Your task to perform on an android device: open app "Microsoft Outlook" Image 0: 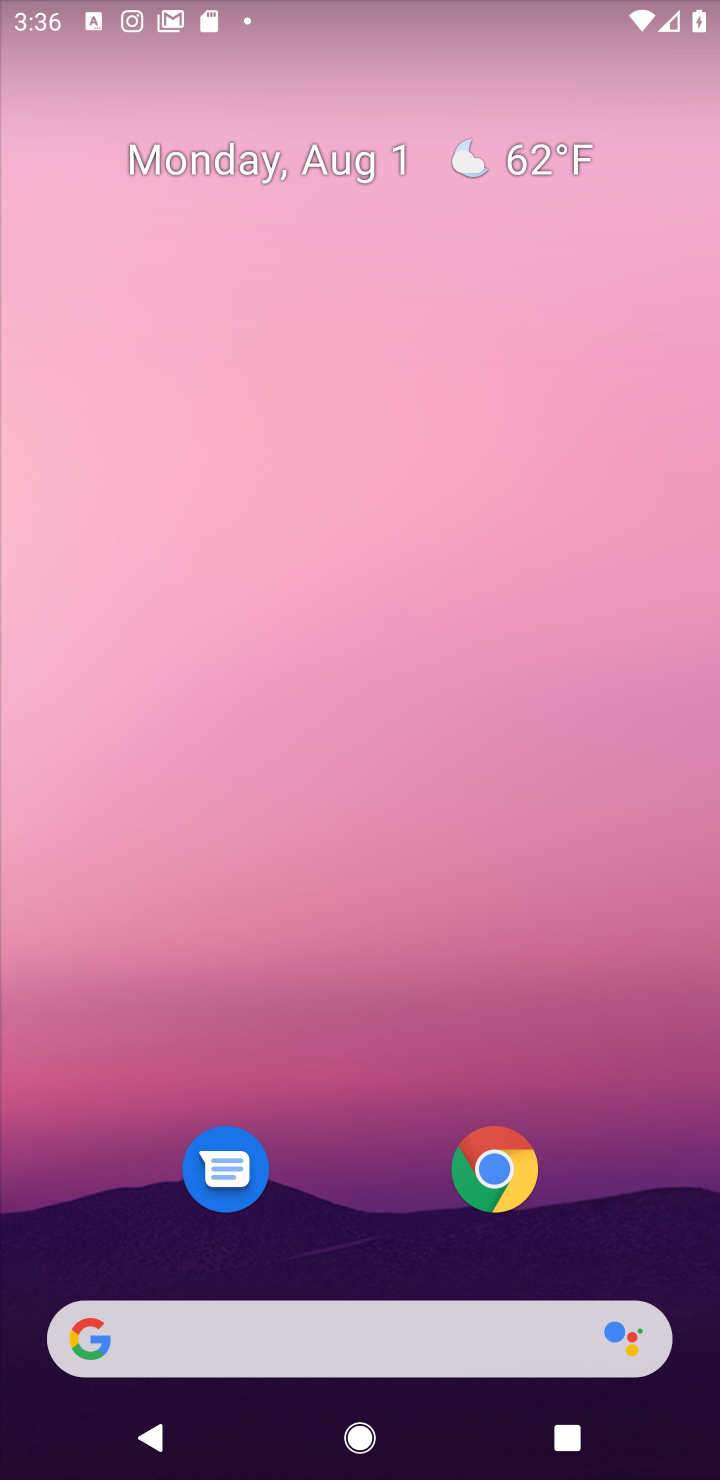
Step 0: drag from (319, 964) to (291, 185)
Your task to perform on an android device: open app "Microsoft Outlook" Image 1: 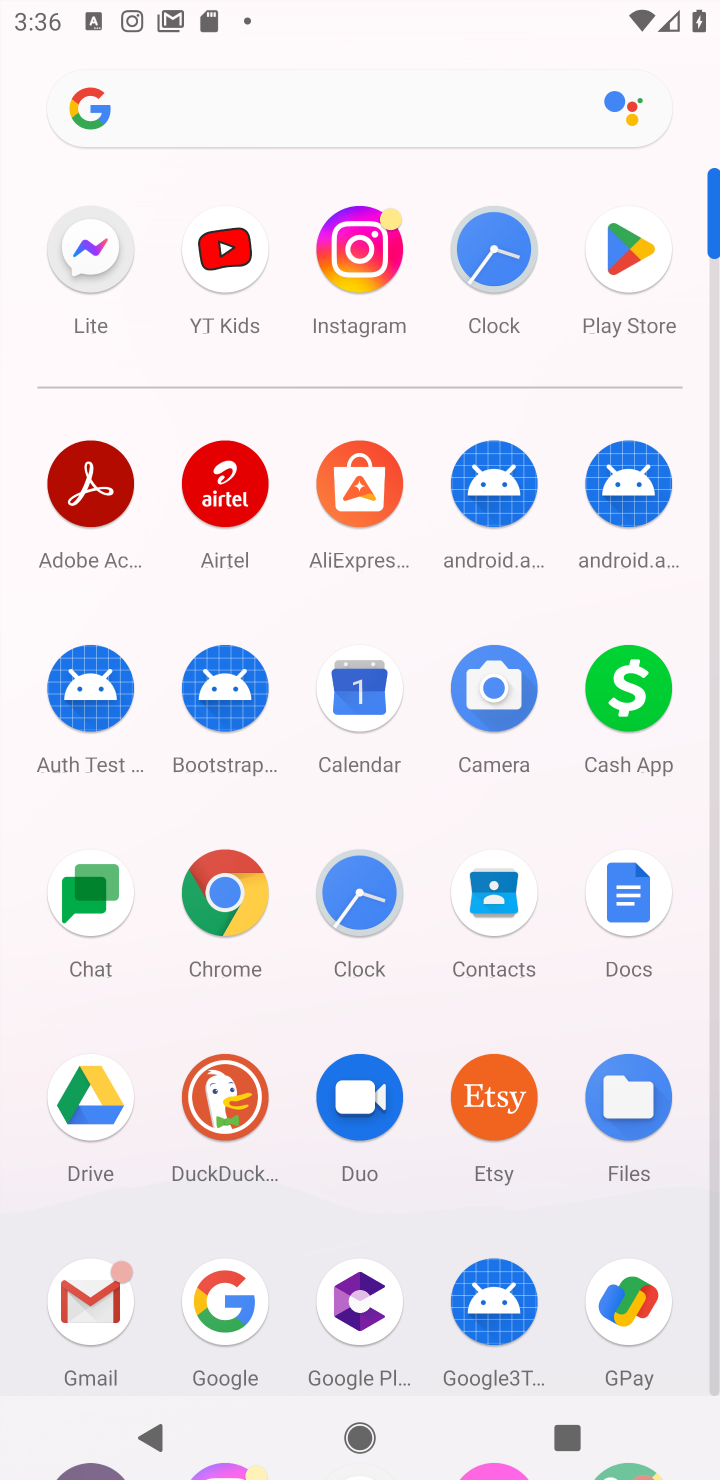
Step 1: click (625, 264)
Your task to perform on an android device: open app "Microsoft Outlook" Image 2: 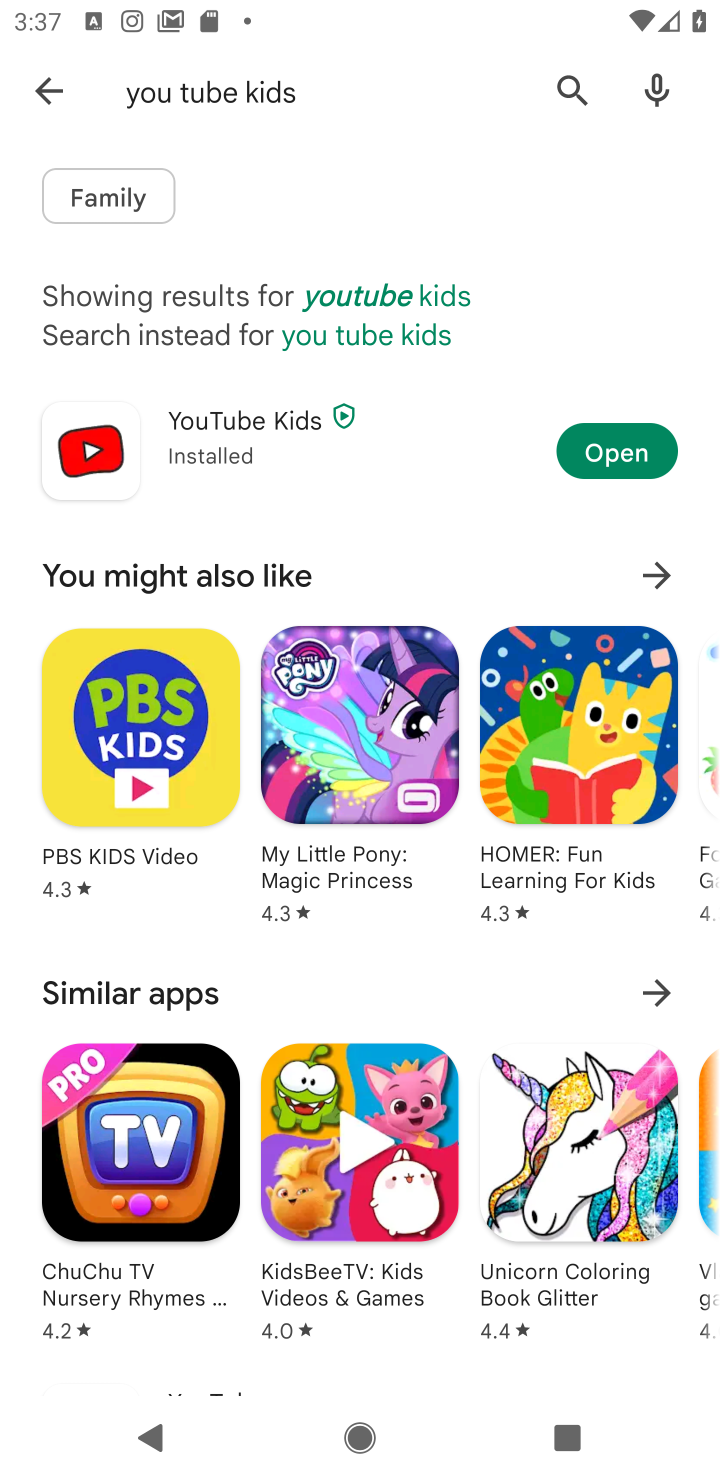
Step 2: click (37, 92)
Your task to perform on an android device: open app "Microsoft Outlook" Image 3: 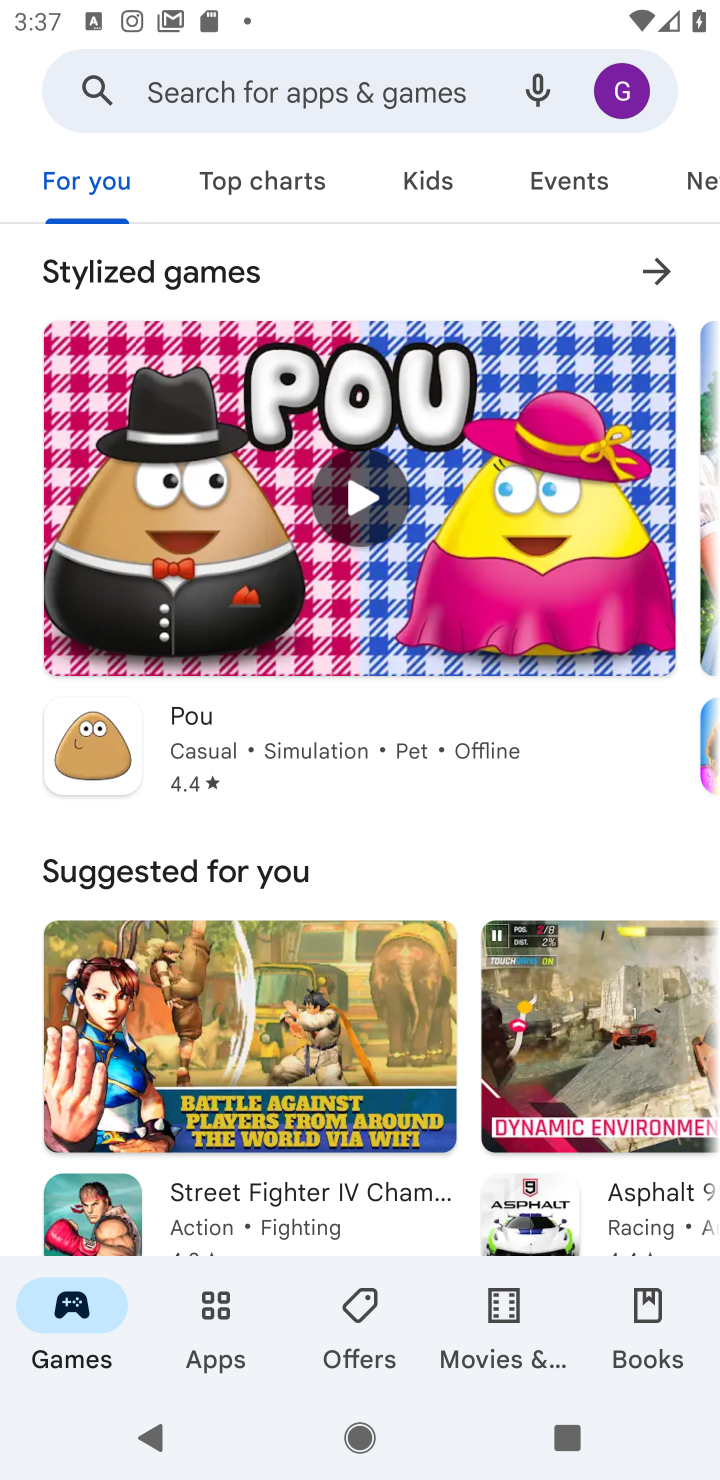
Step 3: click (312, 76)
Your task to perform on an android device: open app "Microsoft Outlook" Image 4: 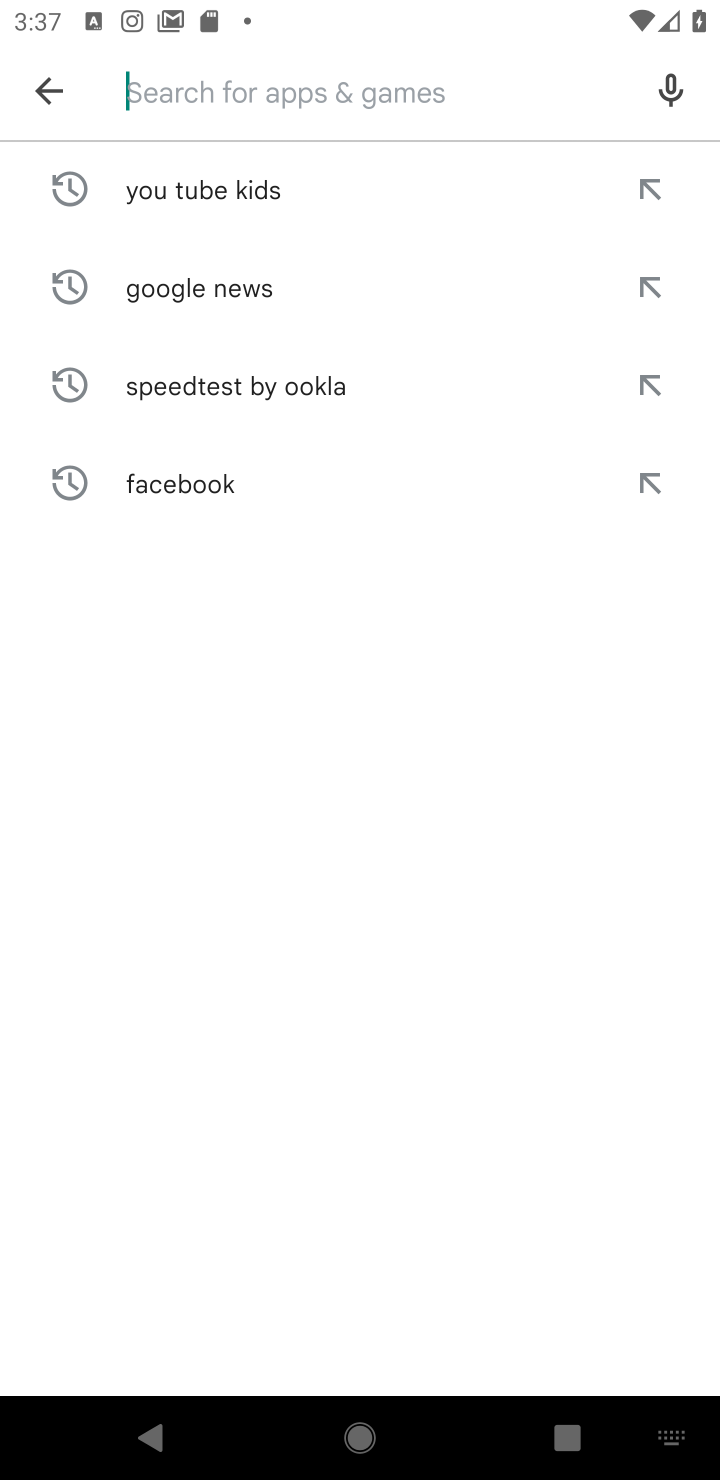
Step 4: type "Microsoft Outlook"
Your task to perform on an android device: open app "Microsoft Outlook" Image 5: 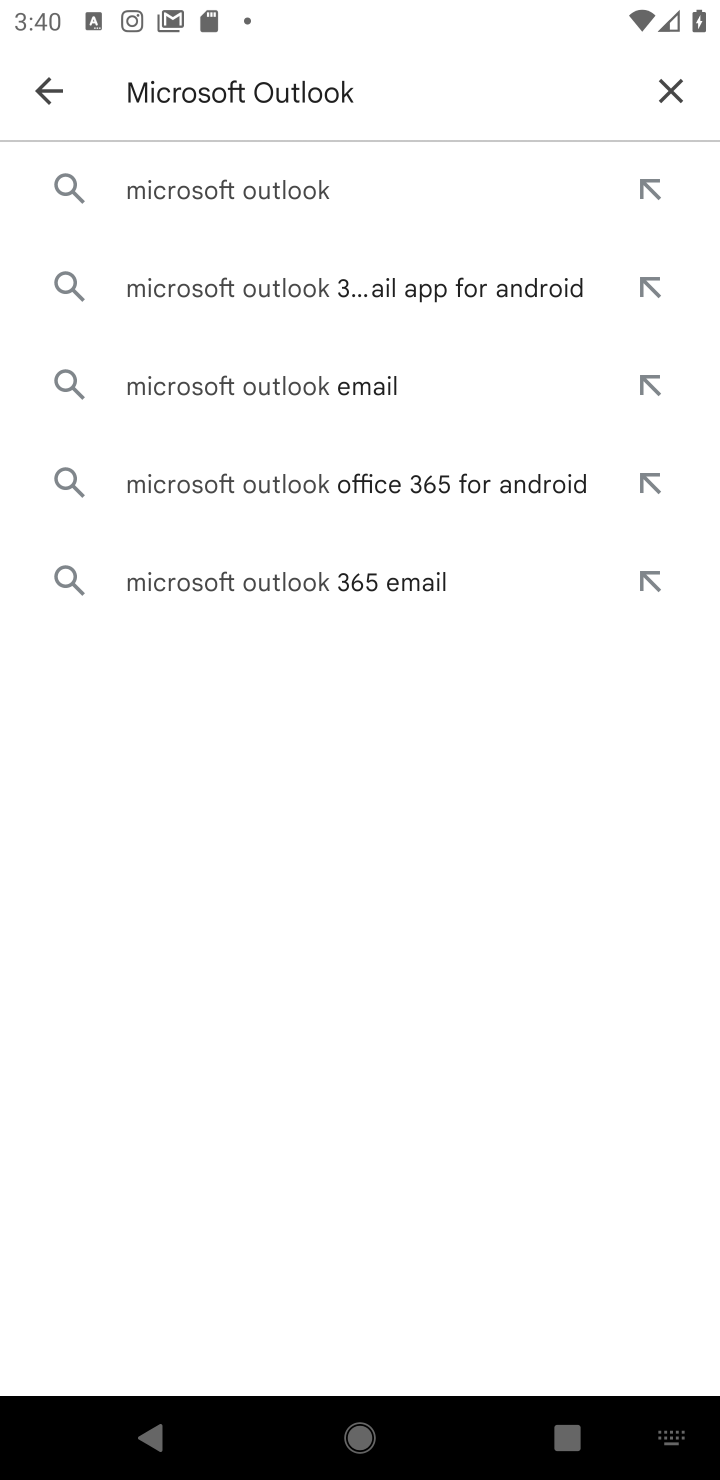
Step 5: click (285, 195)
Your task to perform on an android device: open app "Microsoft Outlook" Image 6: 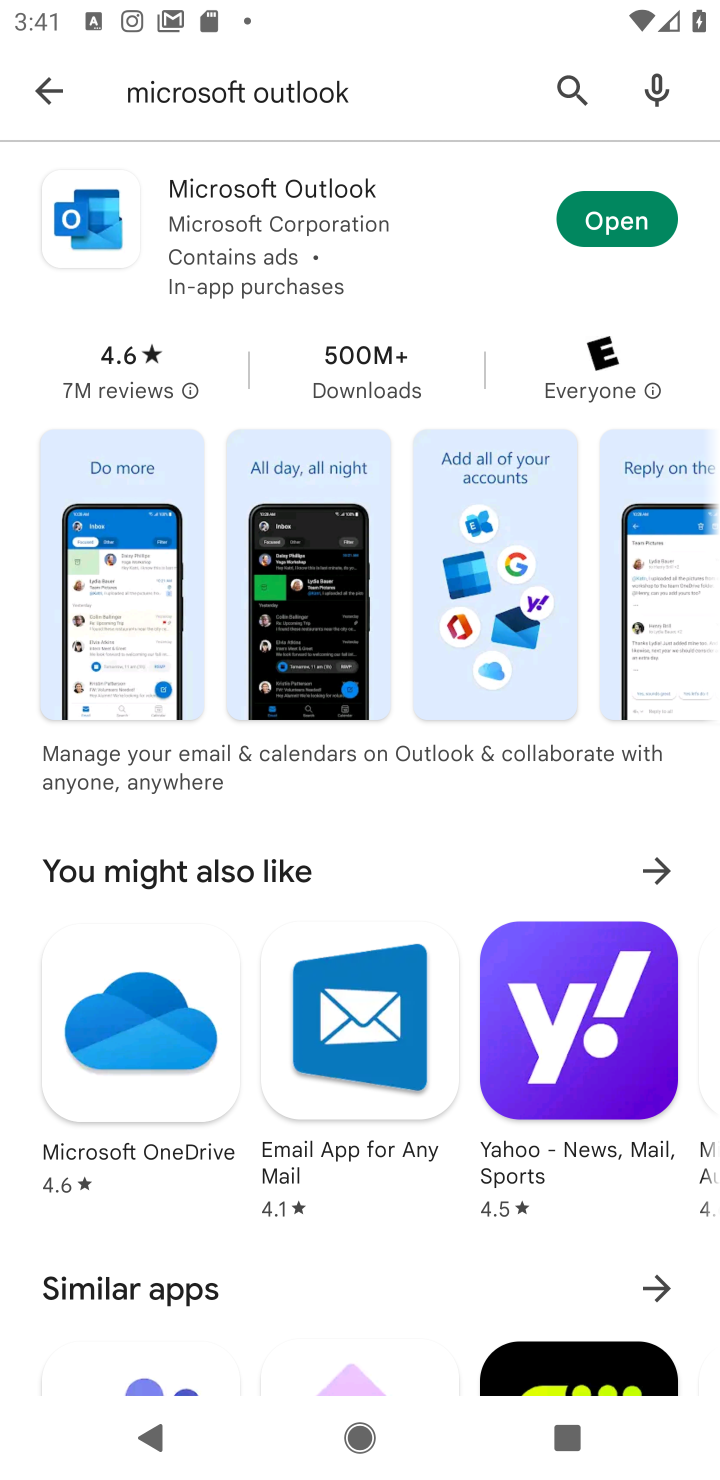
Step 6: click (570, 199)
Your task to perform on an android device: open app "Microsoft Outlook" Image 7: 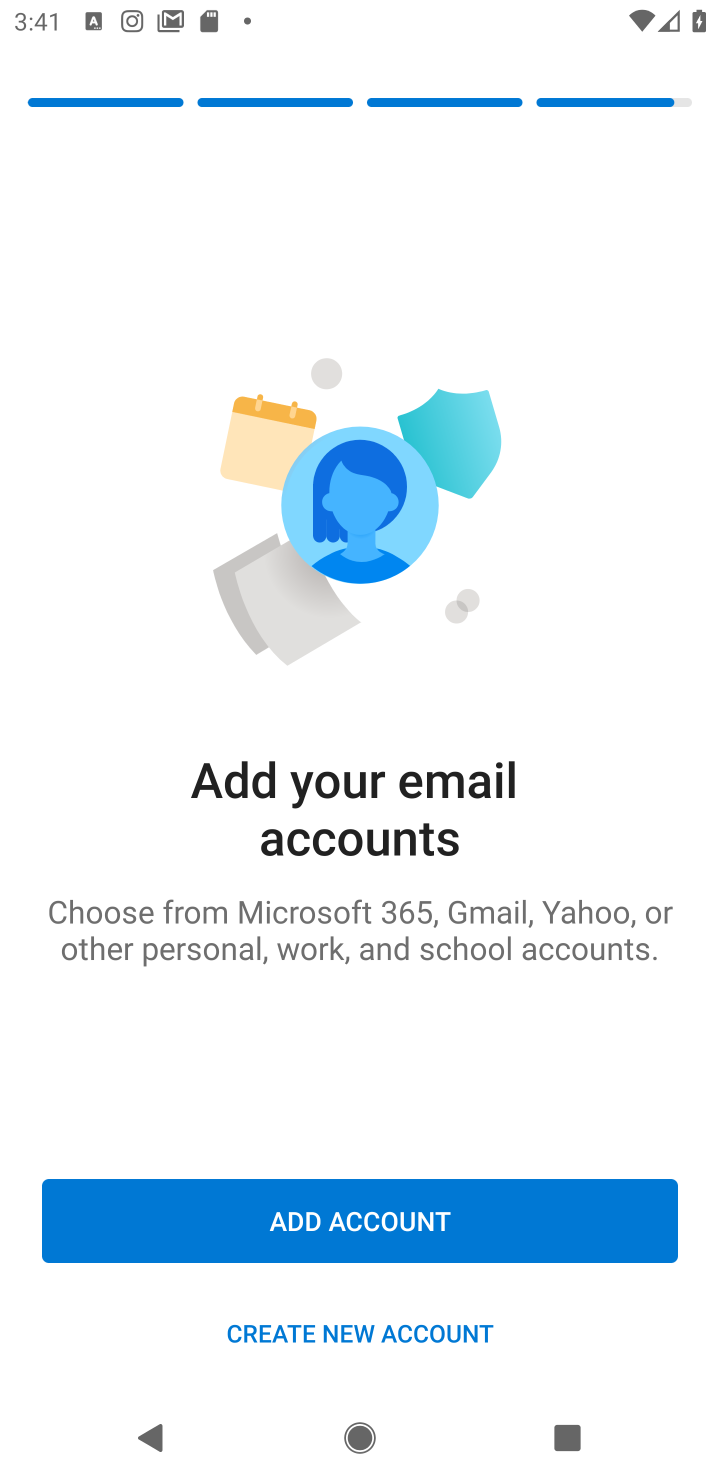
Step 7: task complete